Your task to perform on an android device: Add jbl flip 4 to the cart on ebay.com Image 0: 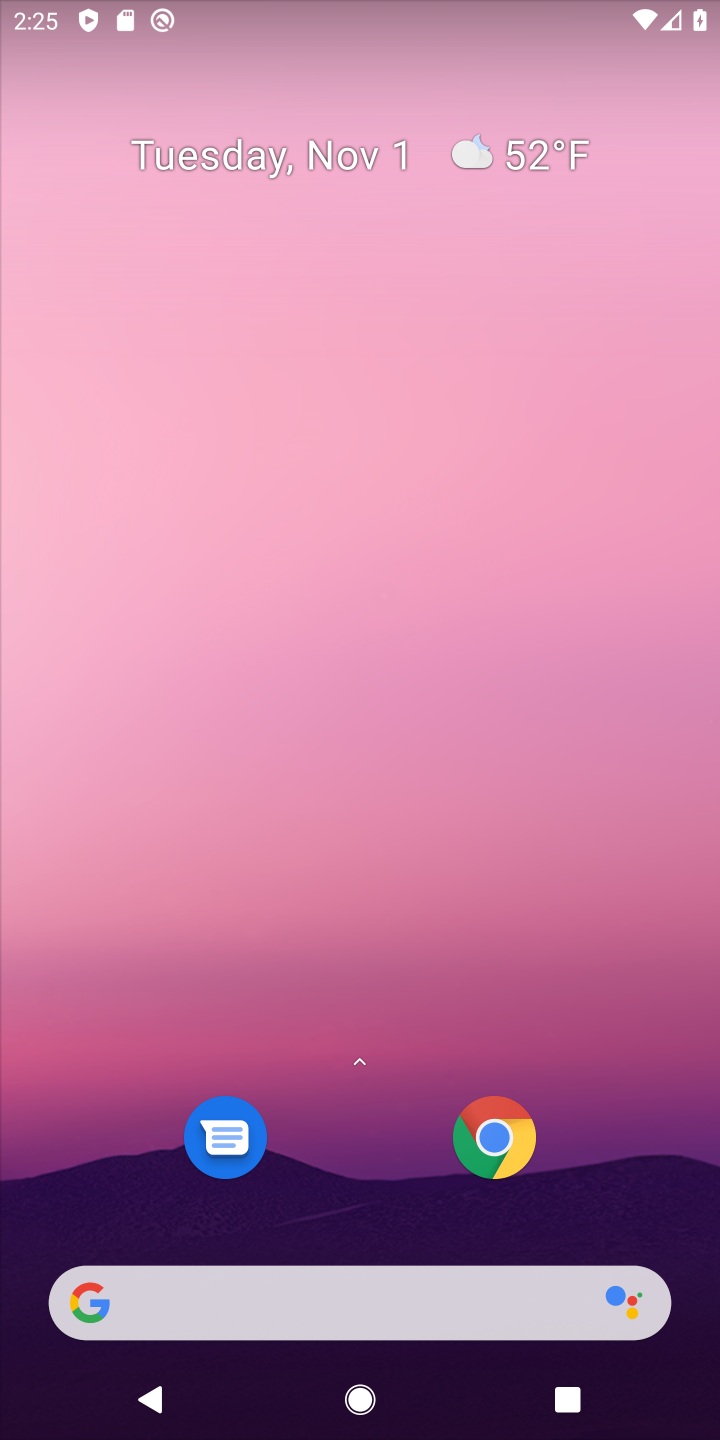
Step 0: click (284, 1293)
Your task to perform on an android device: Add jbl flip 4 to the cart on ebay.com Image 1: 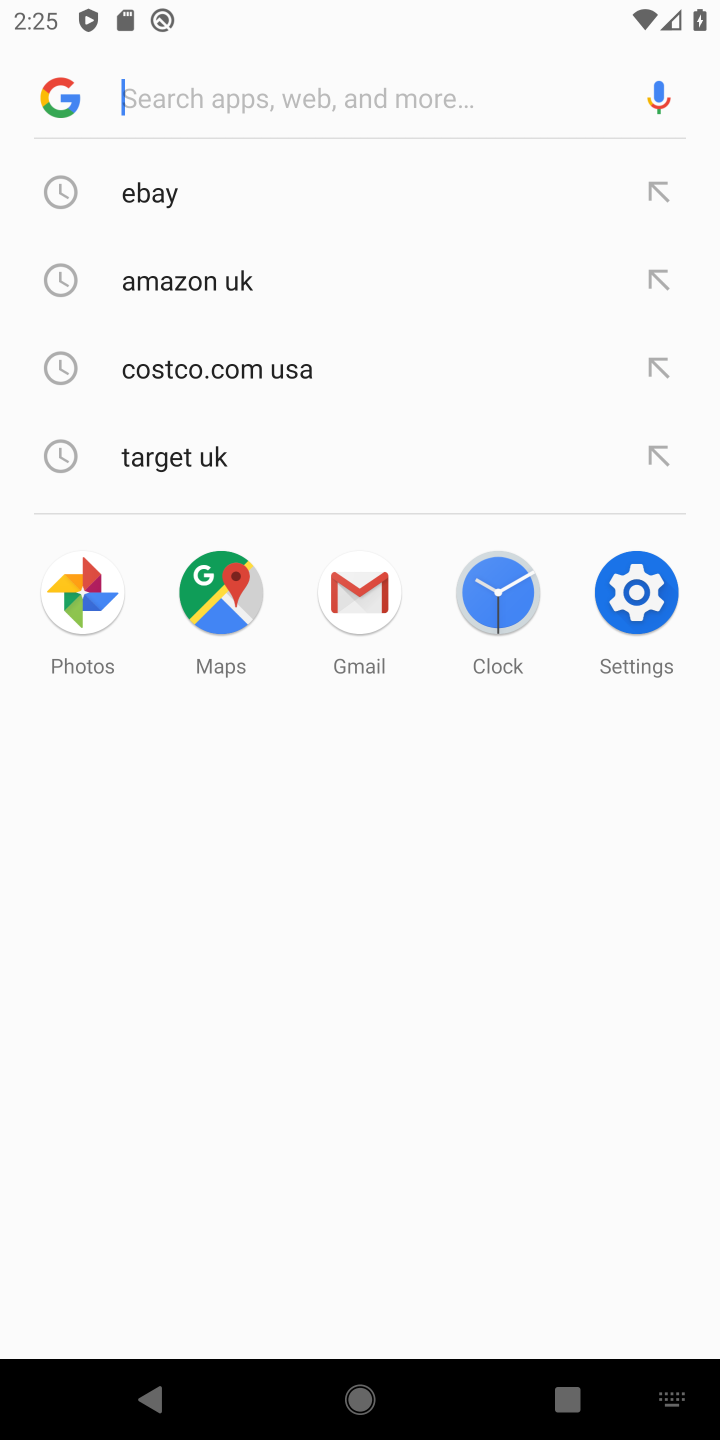
Step 1: type "ebay.com"
Your task to perform on an android device: Add jbl flip 4 to the cart on ebay.com Image 2: 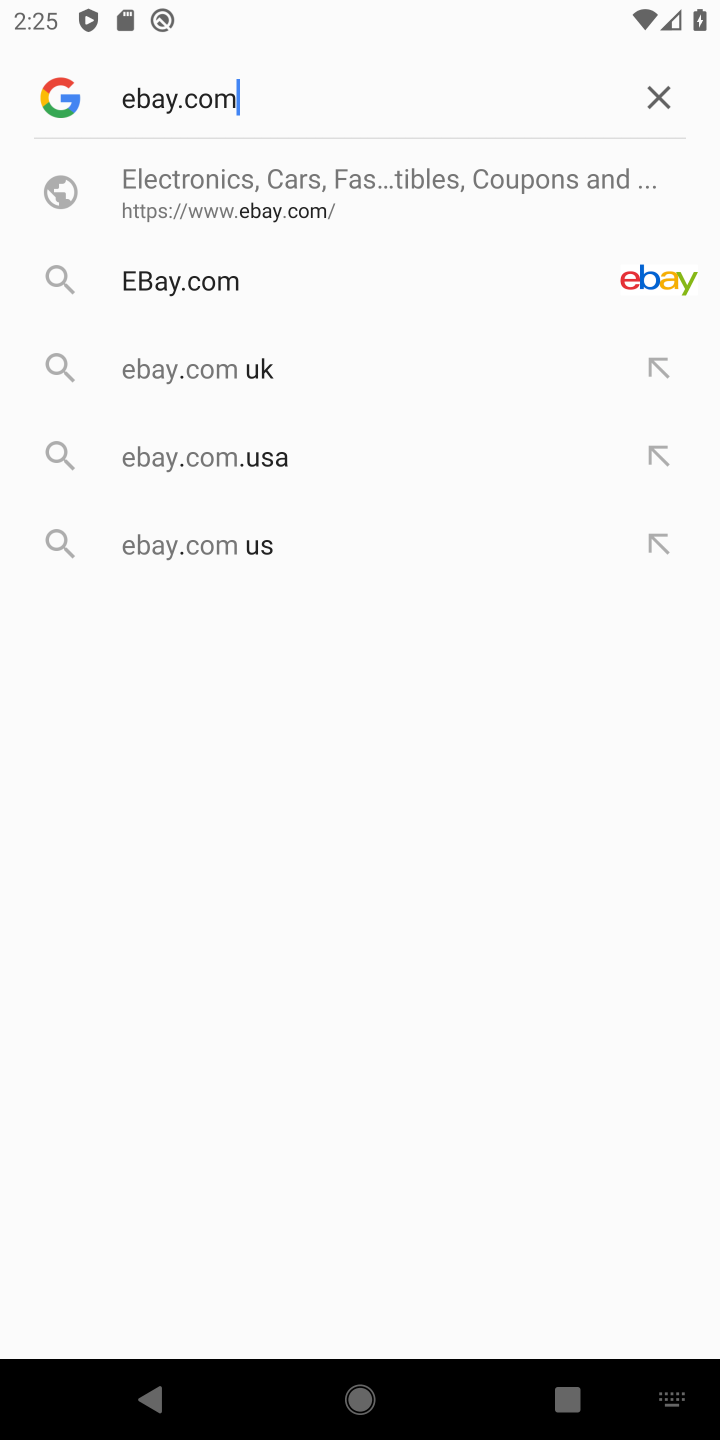
Step 2: click (168, 270)
Your task to perform on an android device: Add jbl flip 4 to the cart on ebay.com Image 3: 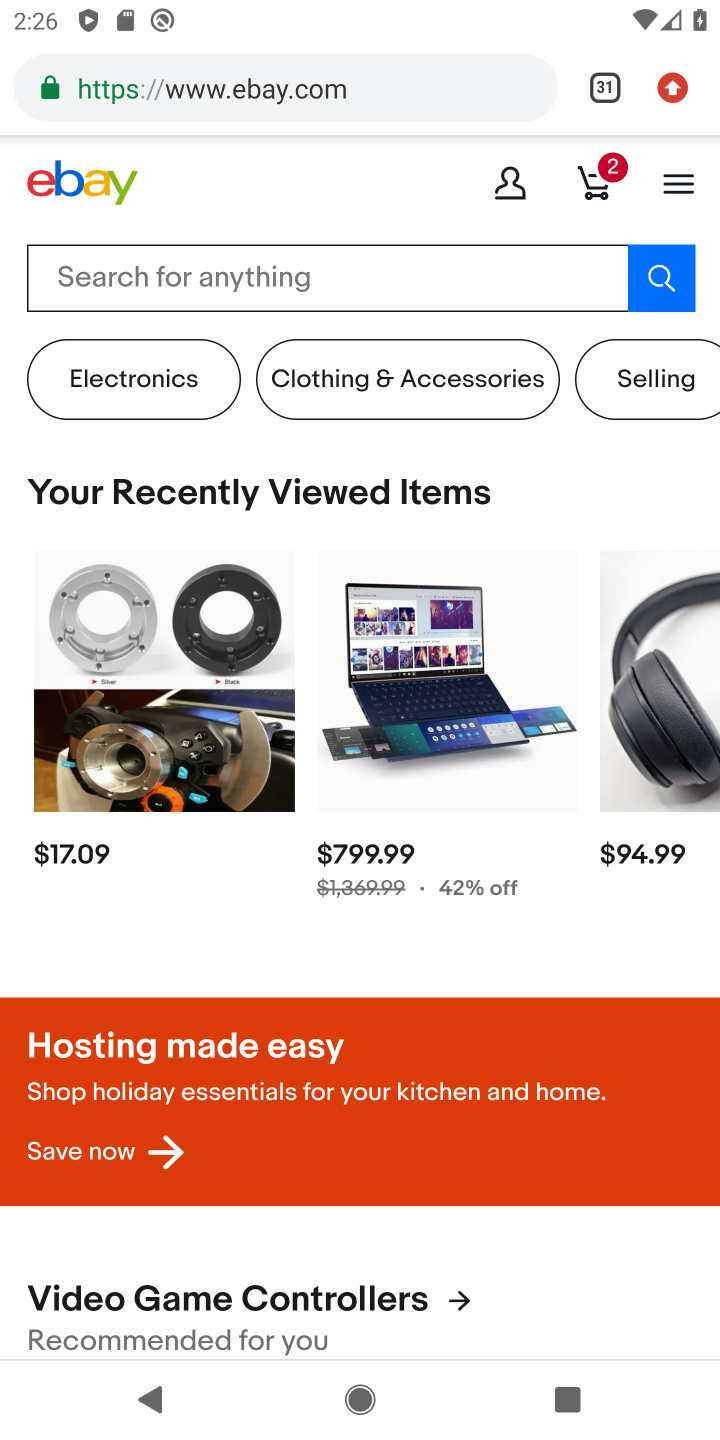
Step 3: click (311, 267)
Your task to perform on an android device: Add jbl flip 4 to the cart on ebay.com Image 4: 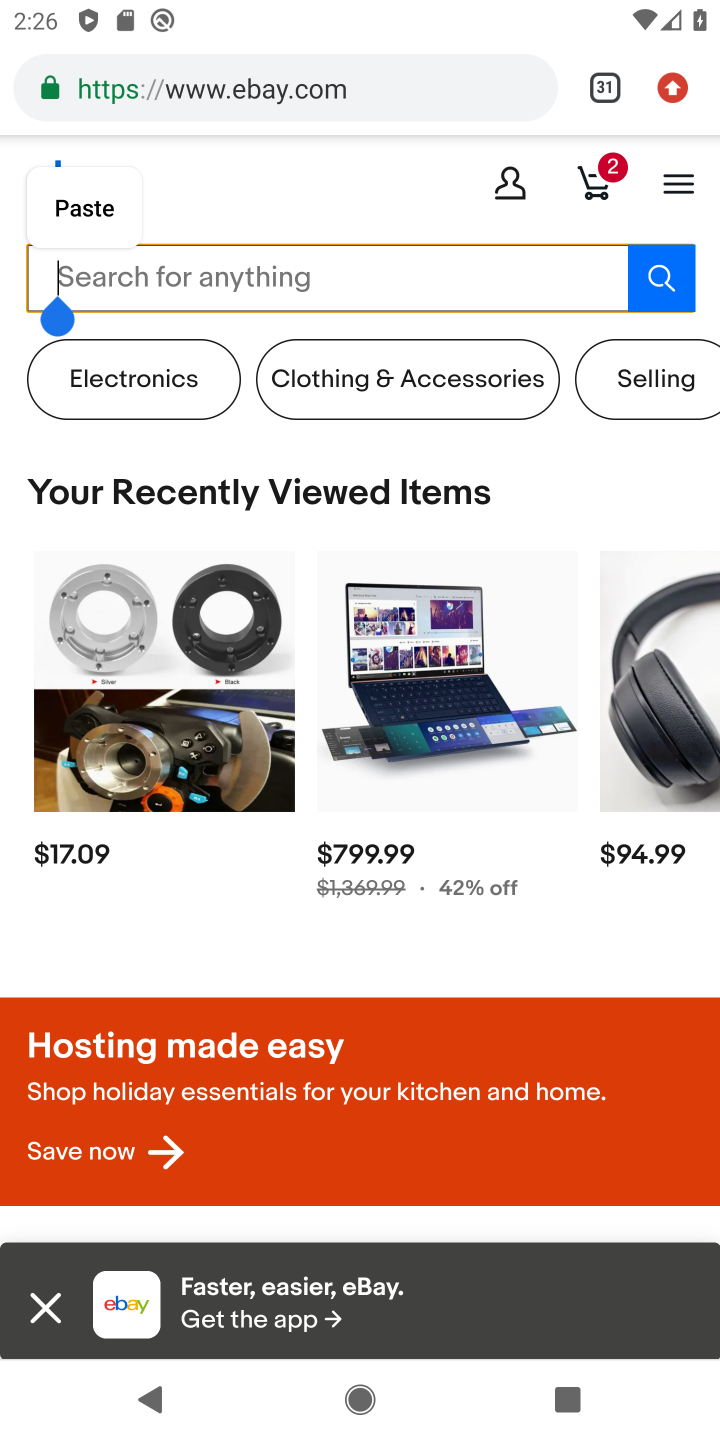
Step 4: type "jbl flip 4"
Your task to perform on an android device: Add jbl flip 4 to the cart on ebay.com Image 5: 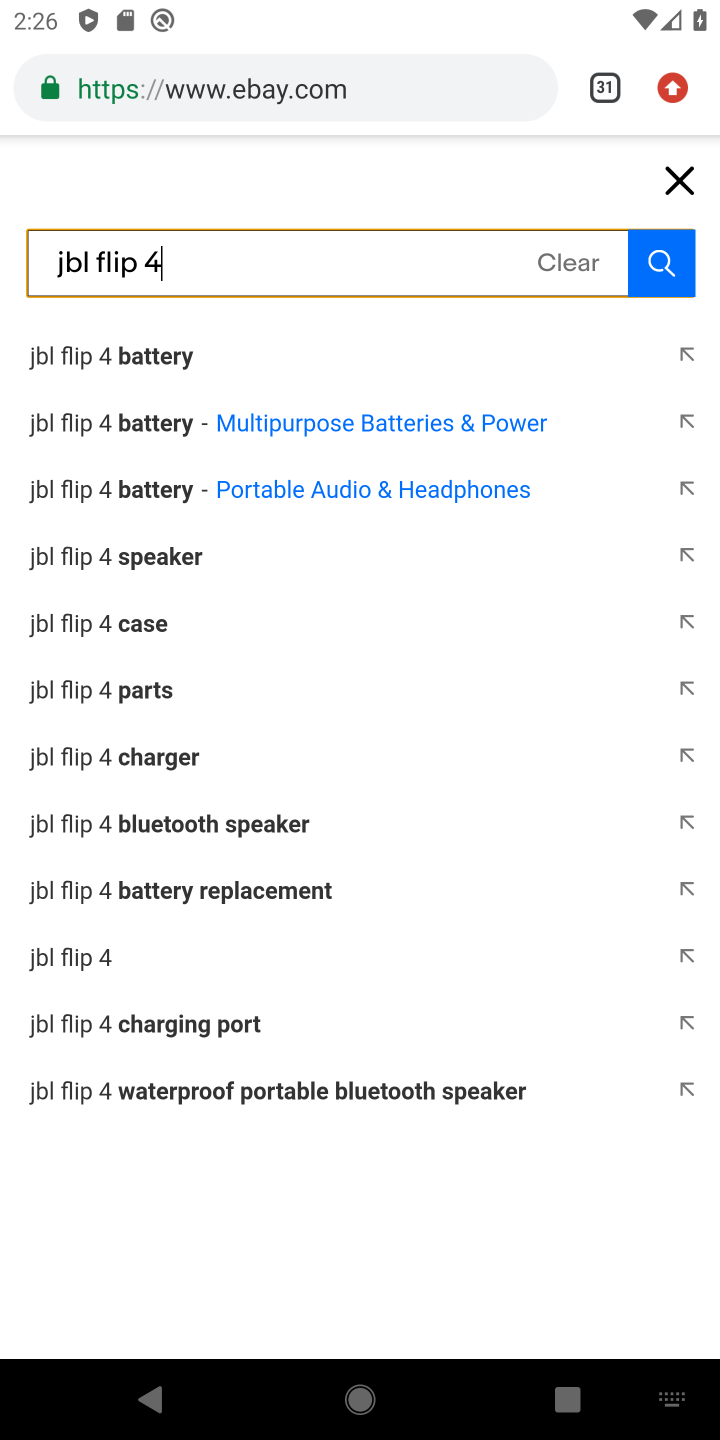
Step 5: click (95, 961)
Your task to perform on an android device: Add jbl flip 4 to the cart on ebay.com Image 6: 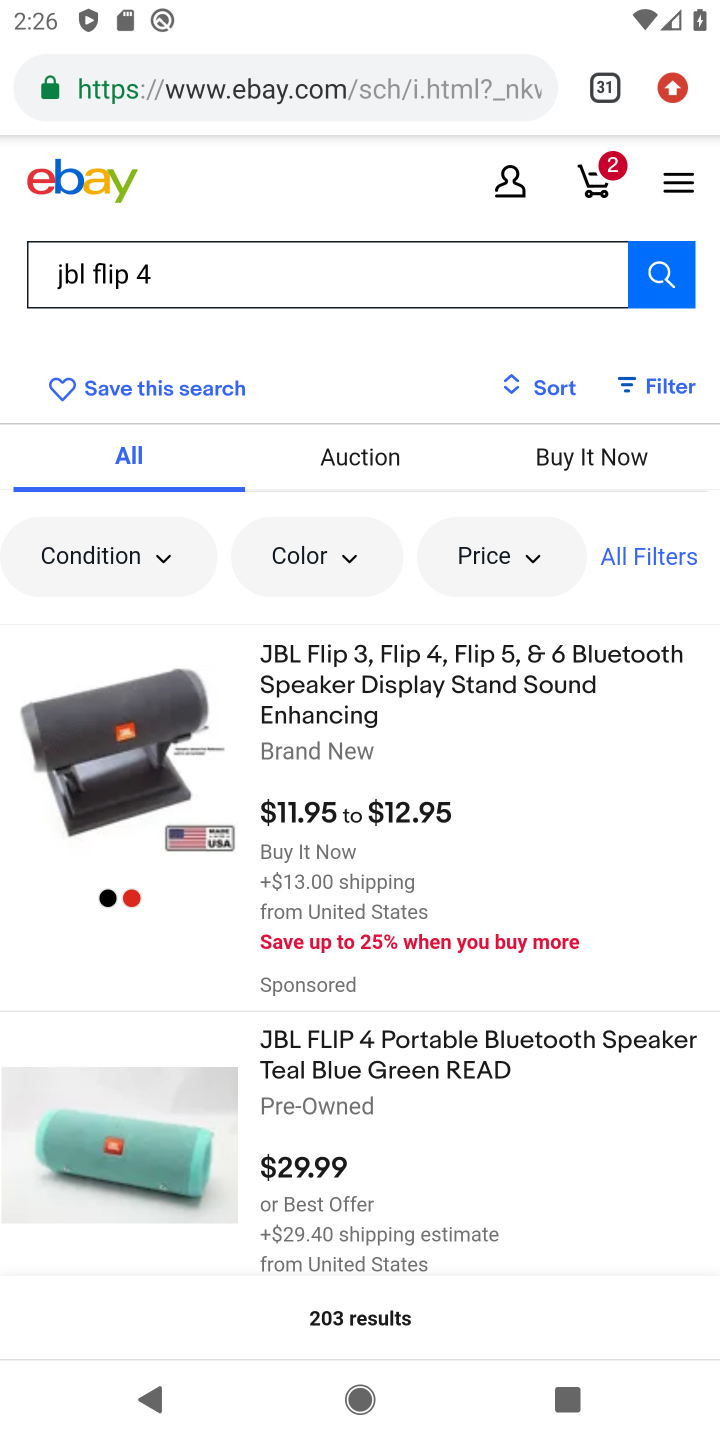
Step 6: click (340, 651)
Your task to perform on an android device: Add jbl flip 4 to the cart on ebay.com Image 7: 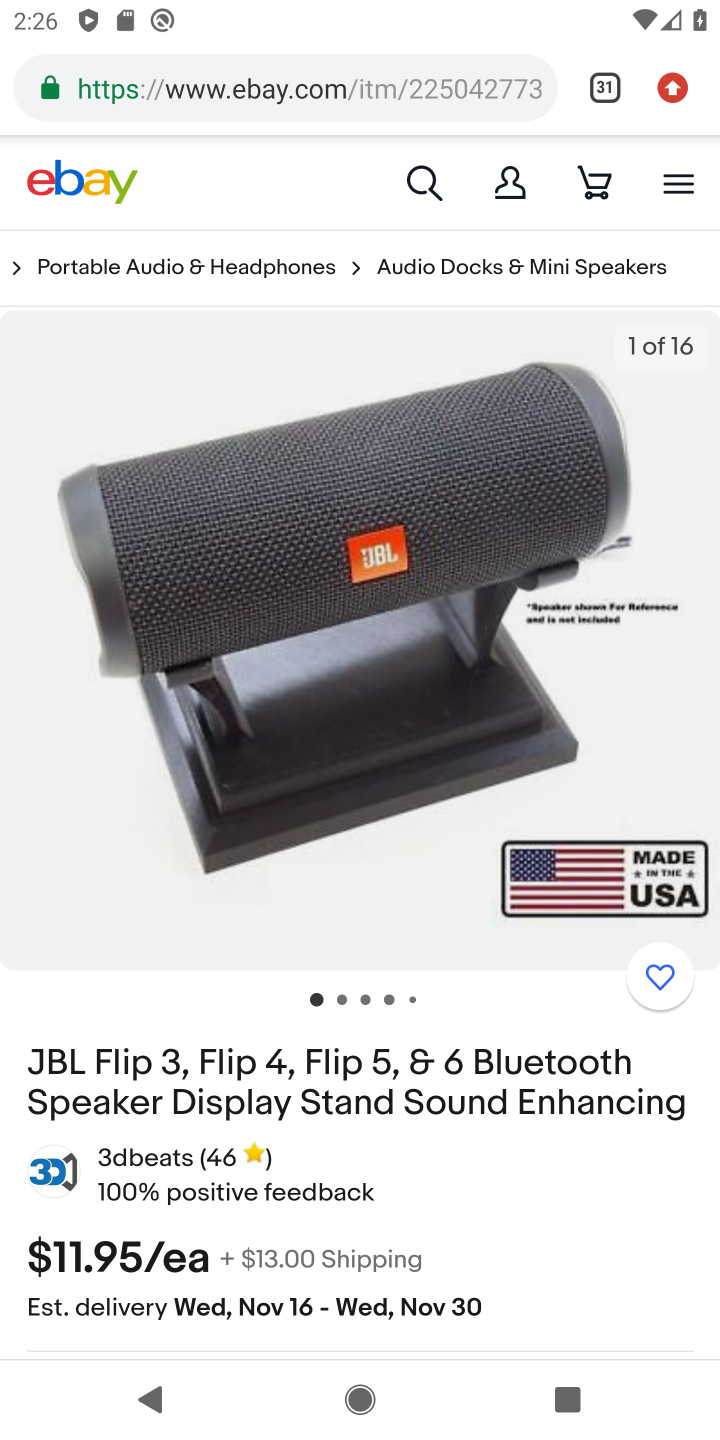
Step 7: drag from (375, 1219) to (241, 734)
Your task to perform on an android device: Add jbl flip 4 to the cart on ebay.com Image 8: 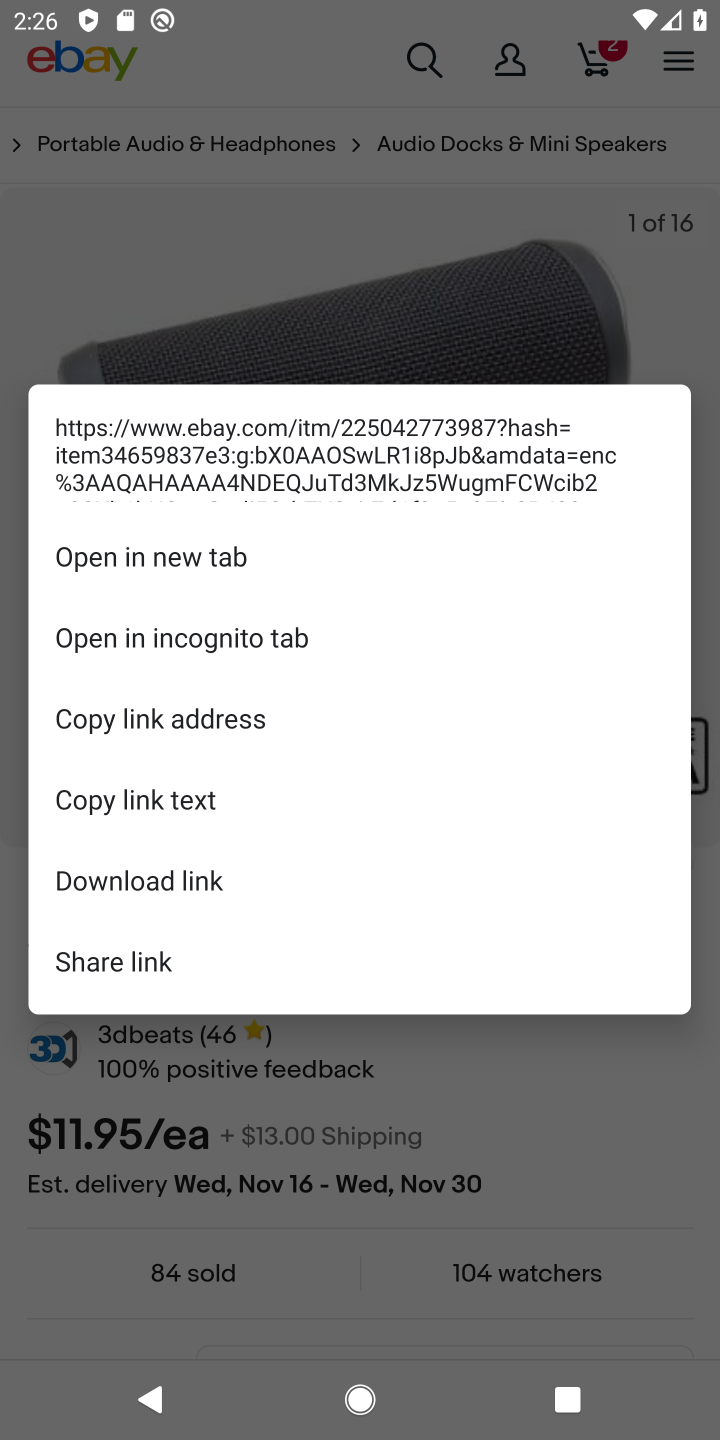
Step 8: click (333, 1198)
Your task to perform on an android device: Add jbl flip 4 to the cart on ebay.com Image 9: 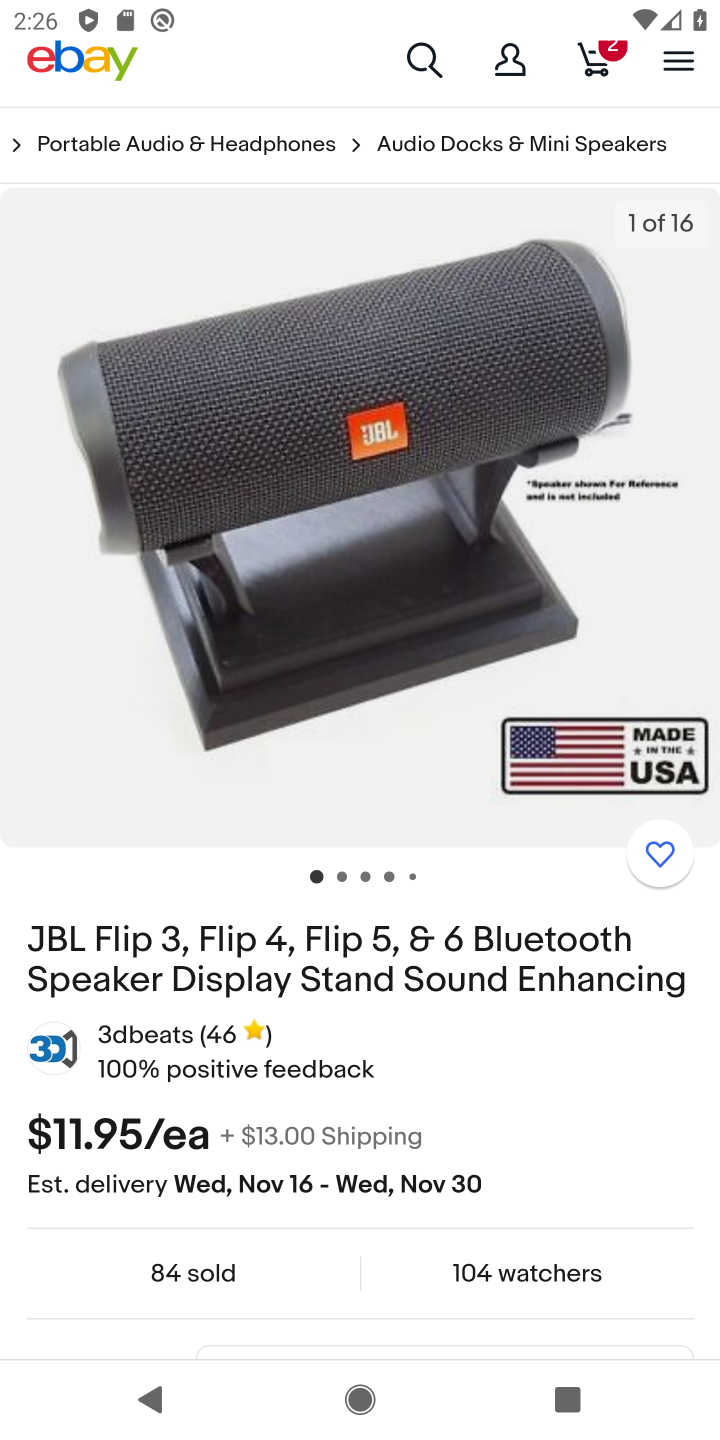
Step 9: drag from (438, 1197) to (298, 299)
Your task to perform on an android device: Add jbl flip 4 to the cart on ebay.com Image 10: 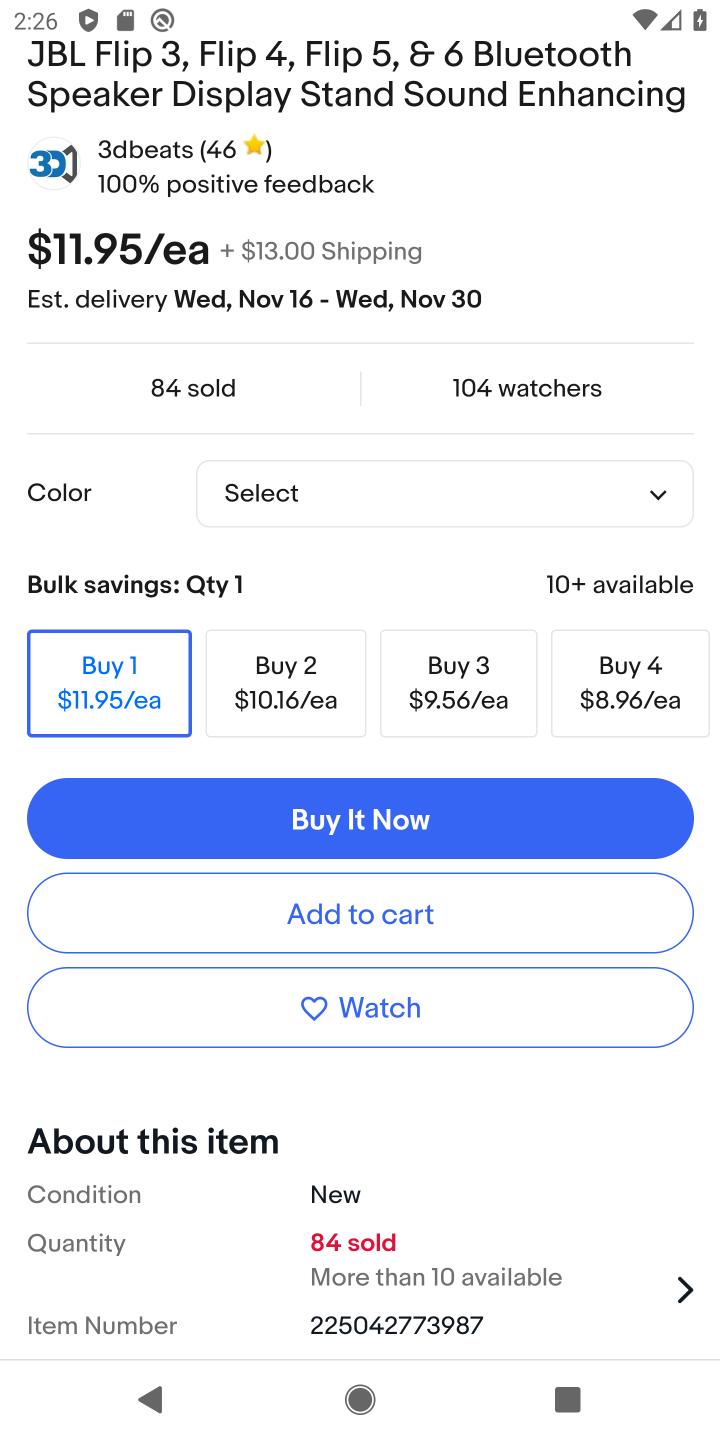
Step 10: click (482, 938)
Your task to perform on an android device: Add jbl flip 4 to the cart on ebay.com Image 11: 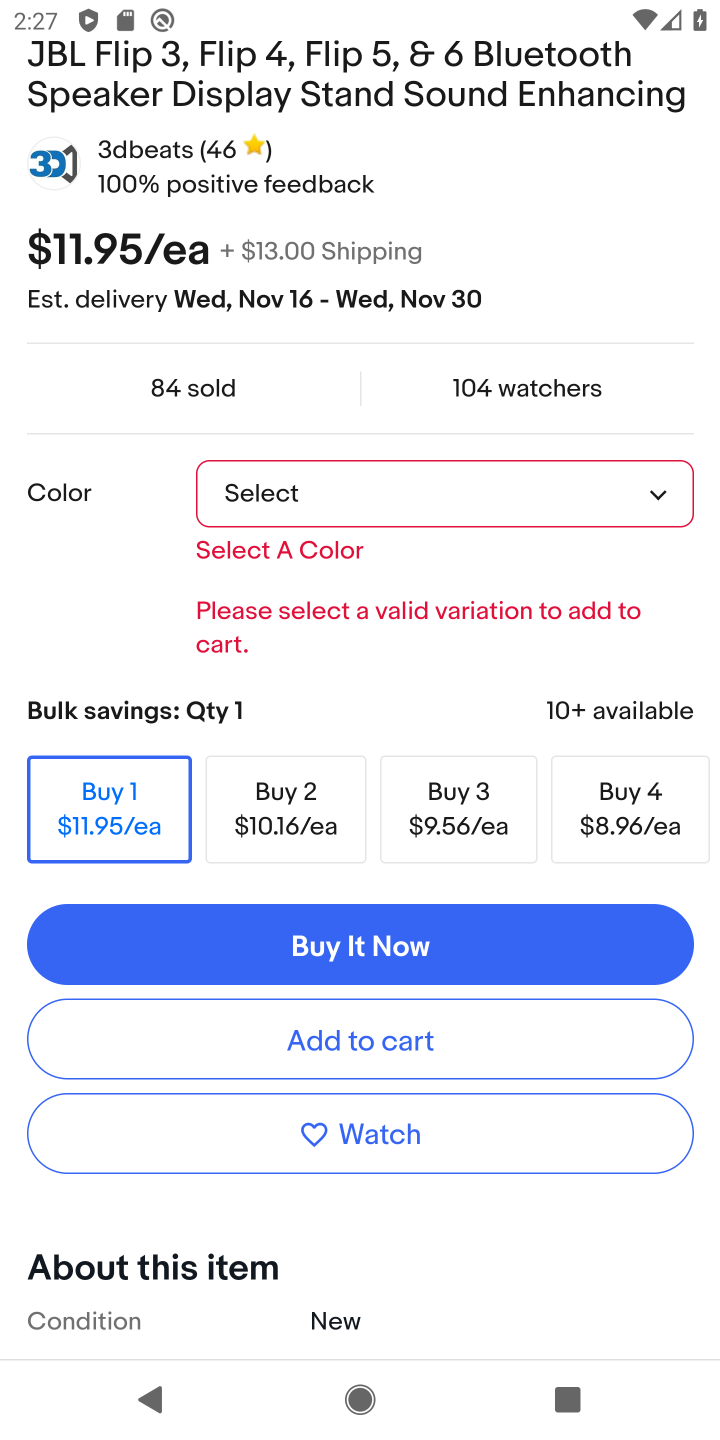
Step 11: task complete